Your task to perform on an android device: turn on improve location accuracy Image 0: 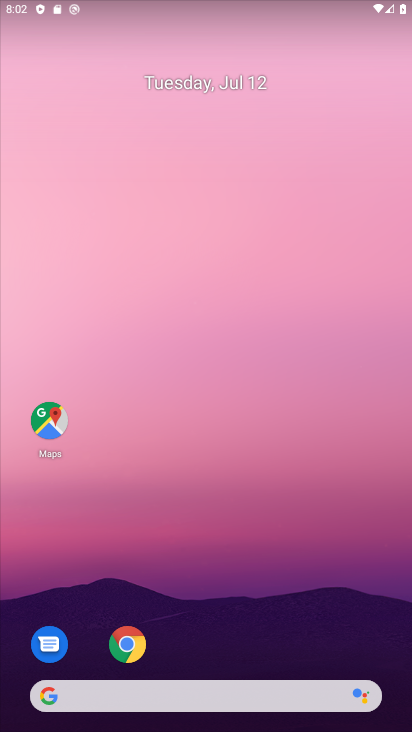
Step 0: drag from (12, 716) to (252, 136)
Your task to perform on an android device: turn on improve location accuracy Image 1: 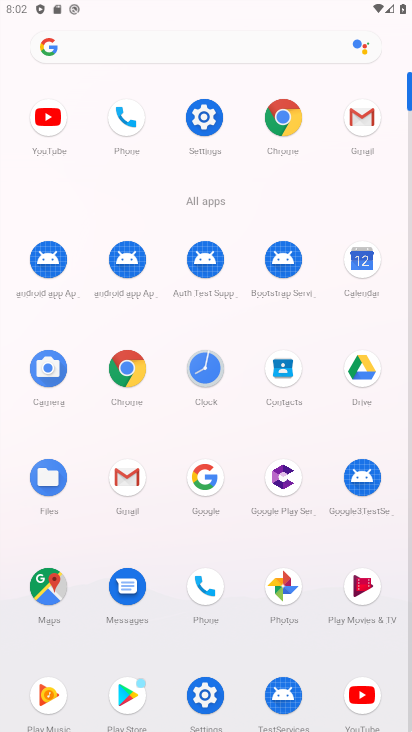
Step 1: click (195, 688)
Your task to perform on an android device: turn on improve location accuracy Image 2: 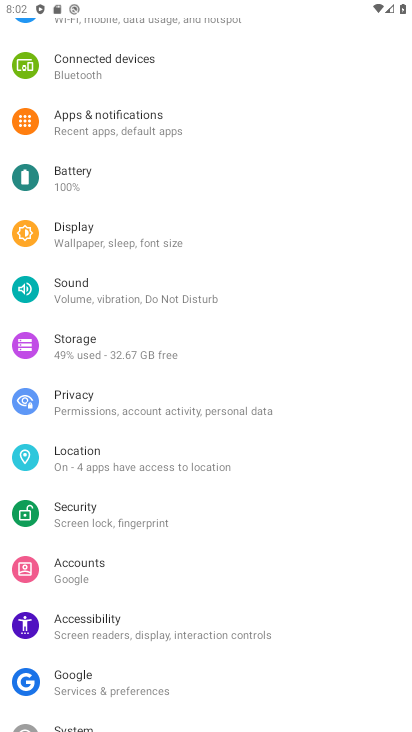
Step 2: click (97, 452)
Your task to perform on an android device: turn on improve location accuracy Image 3: 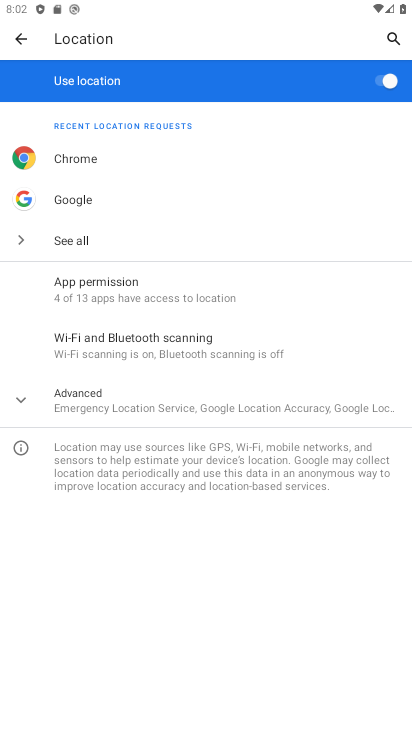
Step 3: click (83, 395)
Your task to perform on an android device: turn on improve location accuracy Image 4: 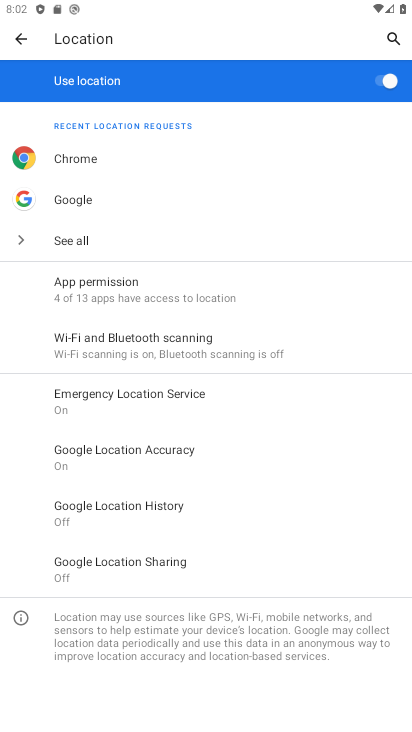
Step 4: task complete